Your task to perform on an android device: Go to eBay Image 0: 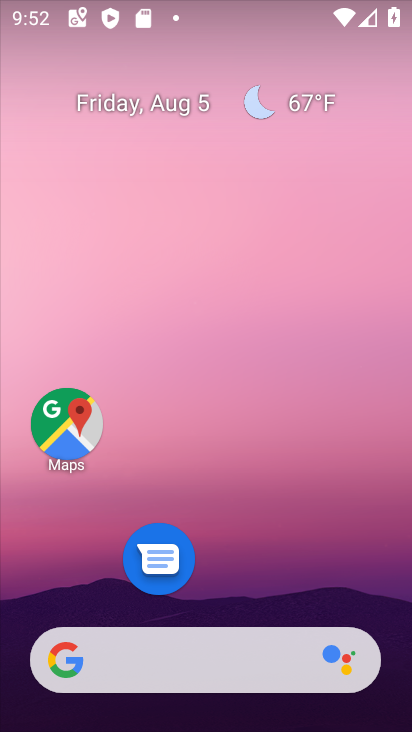
Step 0: drag from (275, 623) to (291, 0)
Your task to perform on an android device: Go to eBay Image 1: 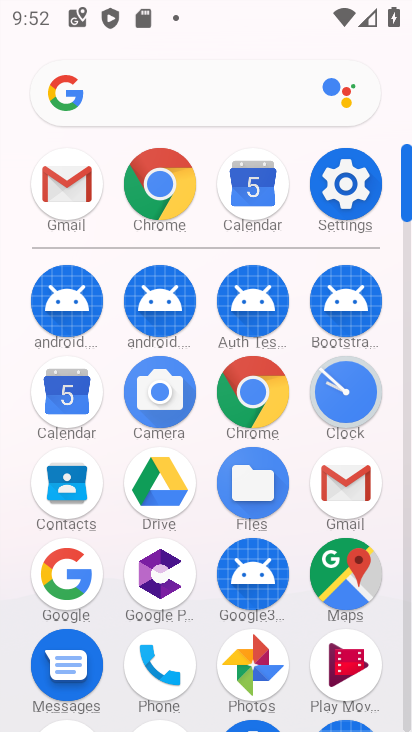
Step 1: click (164, 194)
Your task to perform on an android device: Go to eBay Image 2: 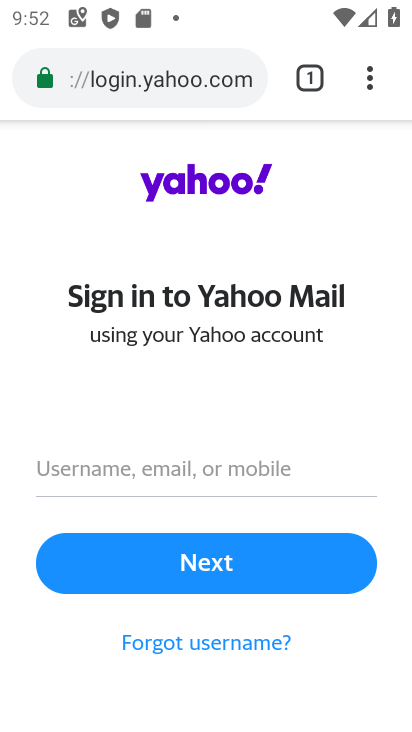
Step 2: click (199, 91)
Your task to perform on an android device: Go to eBay Image 3: 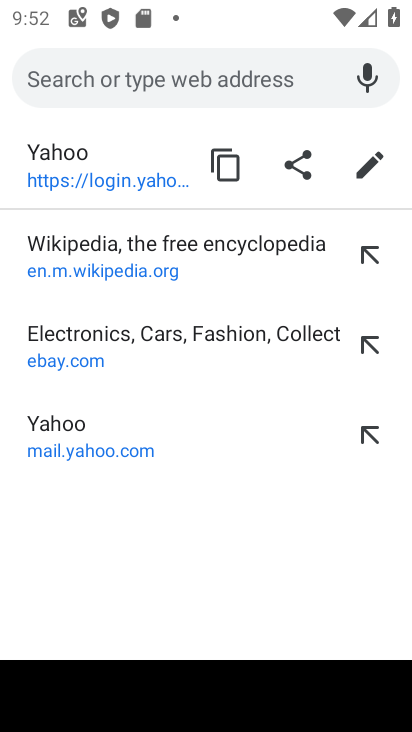
Step 3: click (122, 339)
Your task to perform on an android device: Go to eBay Image 4: 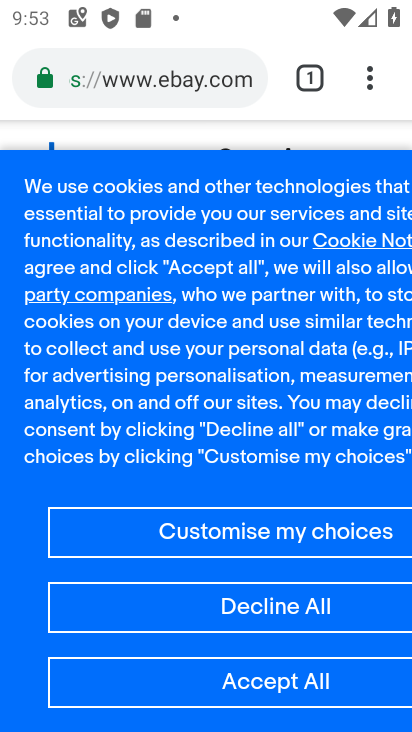
Step 4: task complete